Your task to perform on an android device: Toggle the flashlight Image 0: 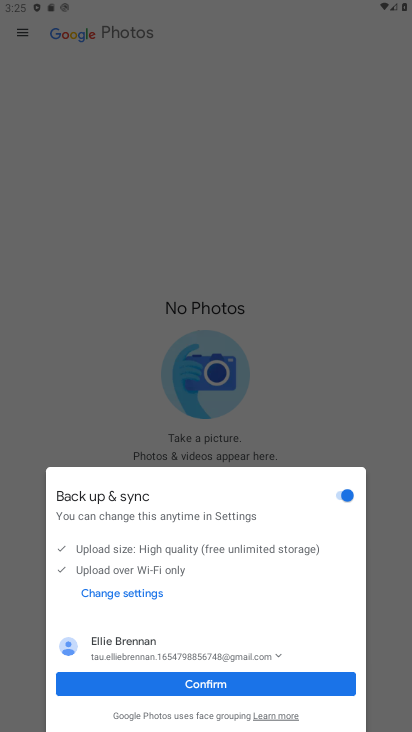
Step 0: press home button
Your task to perform on an android device: Toggle the flashlight Image 1: 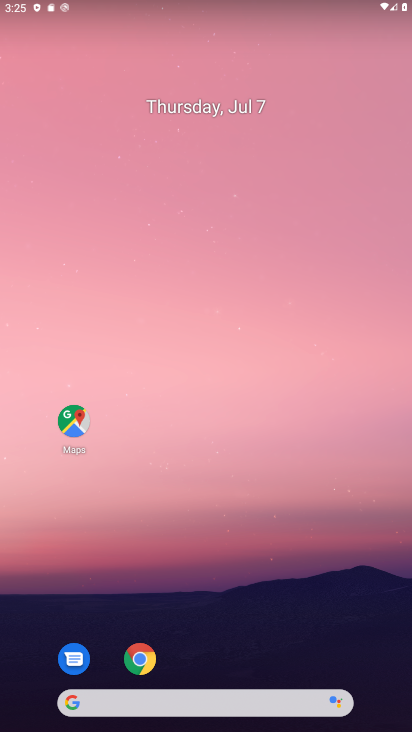
Step 1: drag from (181, 600) to (133, 4)
Your task to perform on an android device: Toggle the flashlight Image 2: 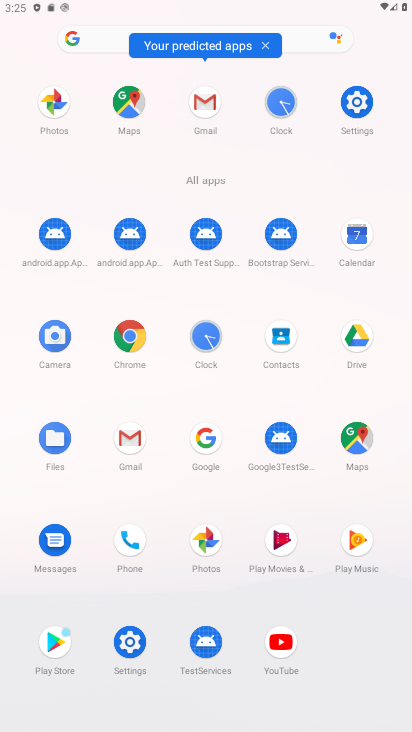
Step 2: click (360, 118)
Your task to perform on an android device: Toggle the flashlight Image 3: 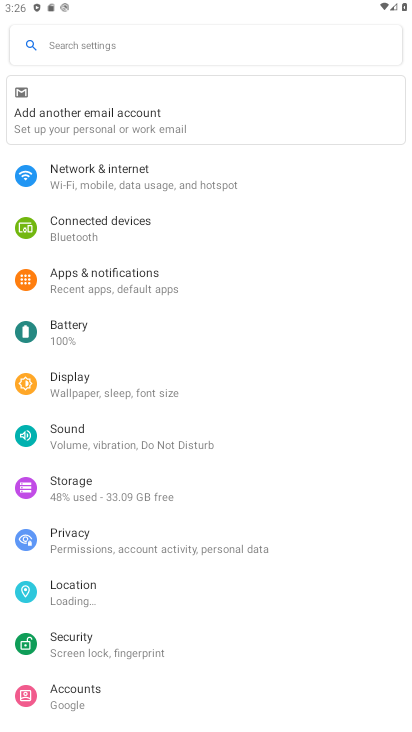
Step 3: click (191, 42)
Your task to perform on an android device: Toggle the flashlight Image 4: 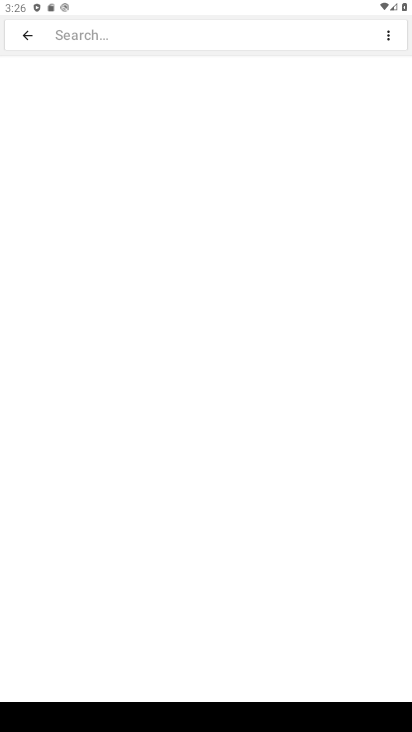
Step 4: type "flashlight"
Your task to perform on an android device: Toggle the flashlight Image 5: 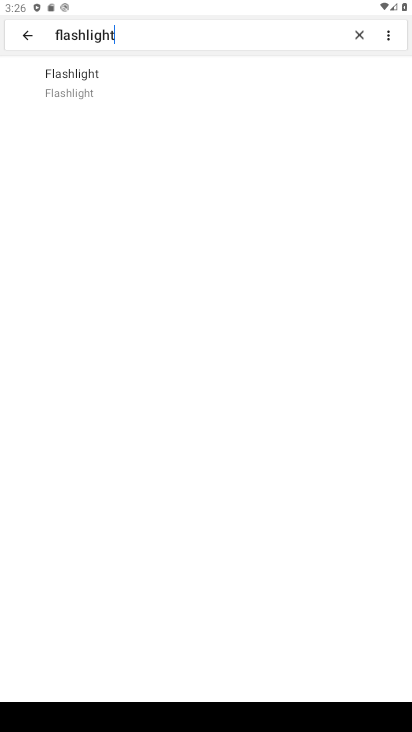
Step 5: click (77, 86)
Your task to perform on an android device: Toggle the flashlight Image 6: 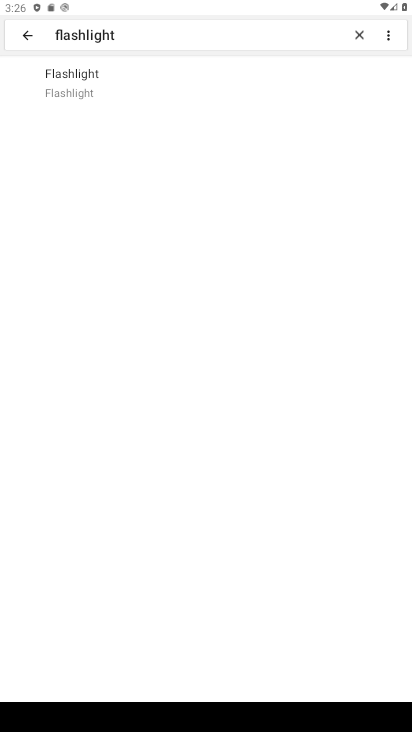
Step 6: task complete